Your task to perform on an android device: Open the map Image 0: 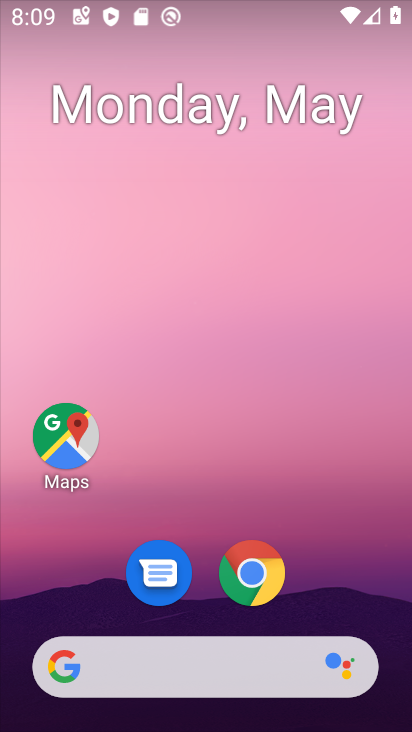
Step 0: click (71, 415)
Your task to perform on an android device: Open the map Image 1: 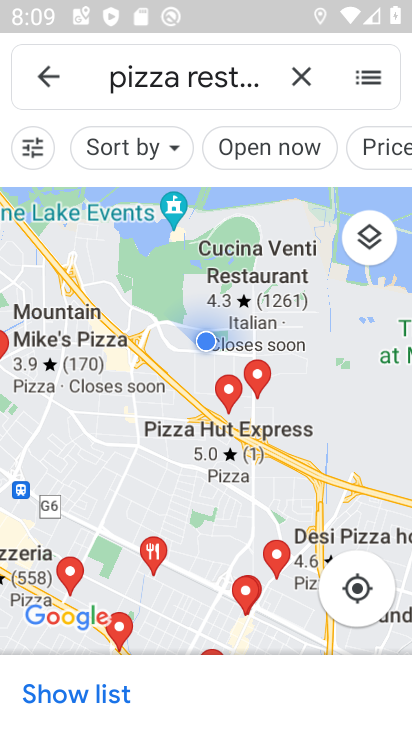
Step 1: task complete